Your task to perform on an android device: Go to settings Image 0: 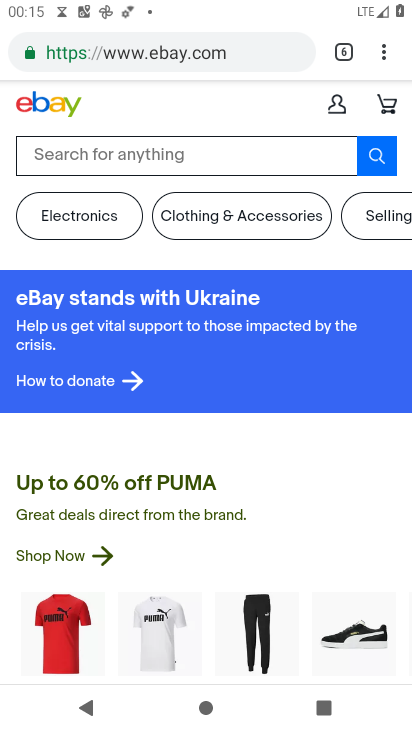
Step 0: press home button
Your task to perform on an android device: Go to settings Image 1: 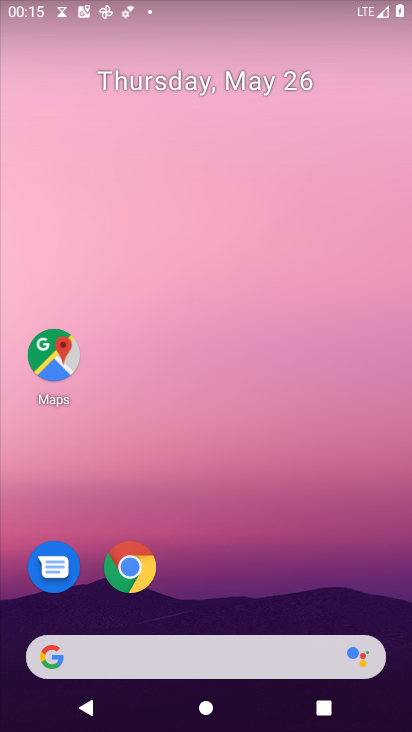
Step 1: drag from (240, 549) to (200, 116)
Your task to perform on an android device: Go to settings Image 2: 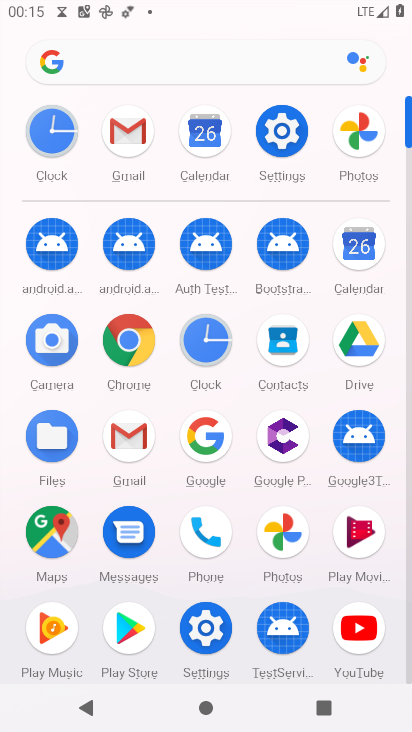
Step 2: click (265, 132)
Your task to perform on an android device: Go to settings Image 3: 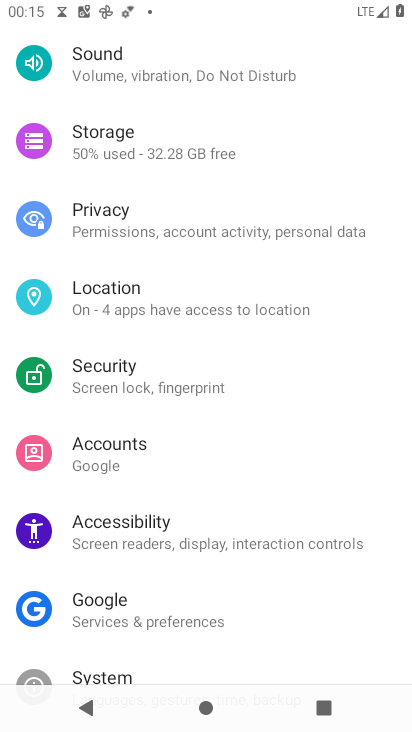
Step 3: task complete